Your task to perform on an android device: clear history in the chrome app Image 0: 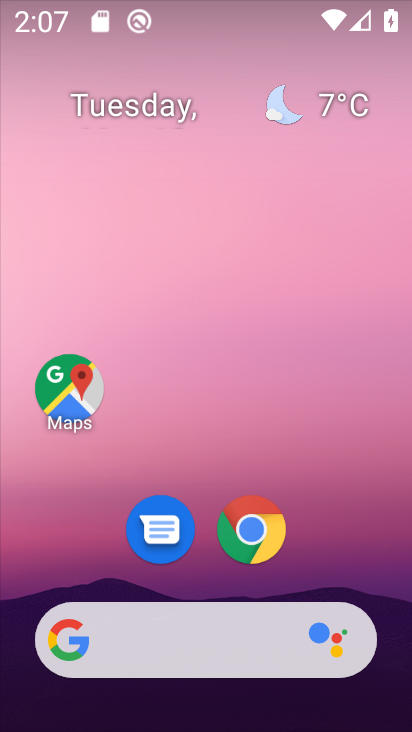
Step 0: click (252, 525)
Your task to perform on an android device: clear history in the chrome app Image 1: 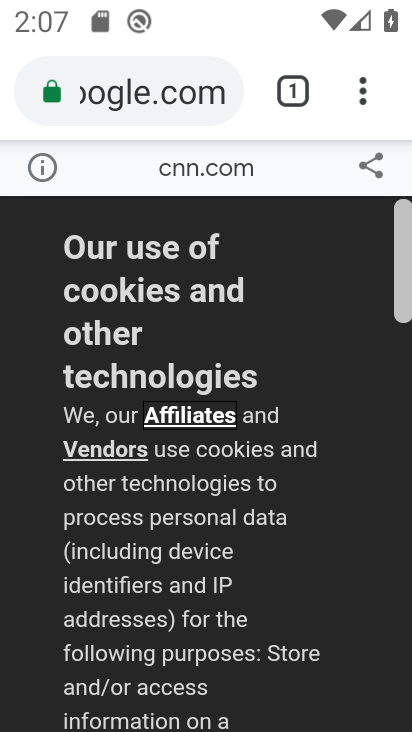
Step 1: click (362, 93)
Your task to perform on an android device: clear history in the chrome app Image 2: 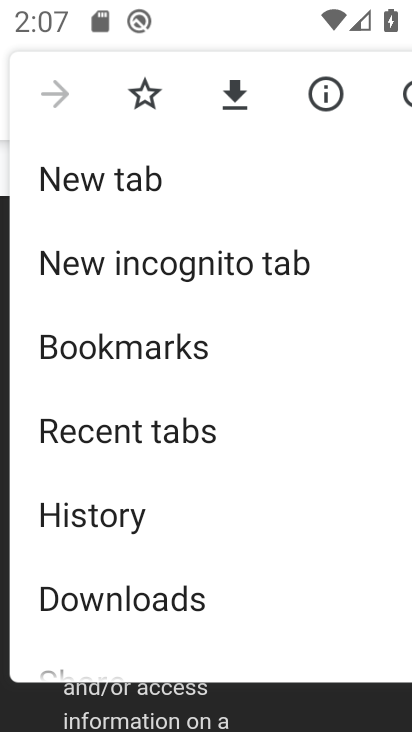
Step 2: click (123, 510)
Your task to perform on an android device: clear history in the chrome app Image 3: 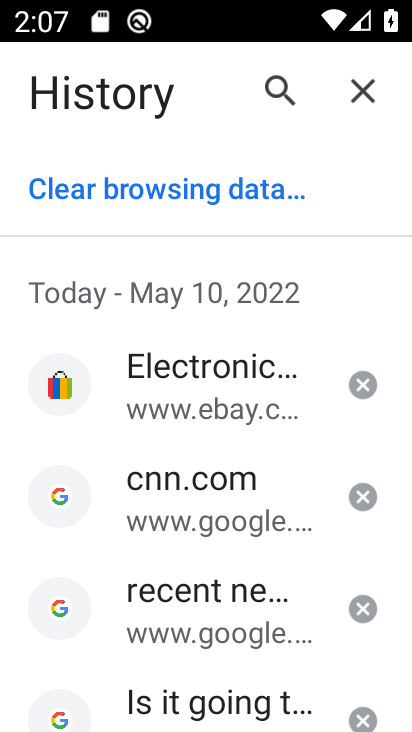
Step 3: click (186, 190)
Your task to perform on an android device: clear history in the chrome app Image 4: 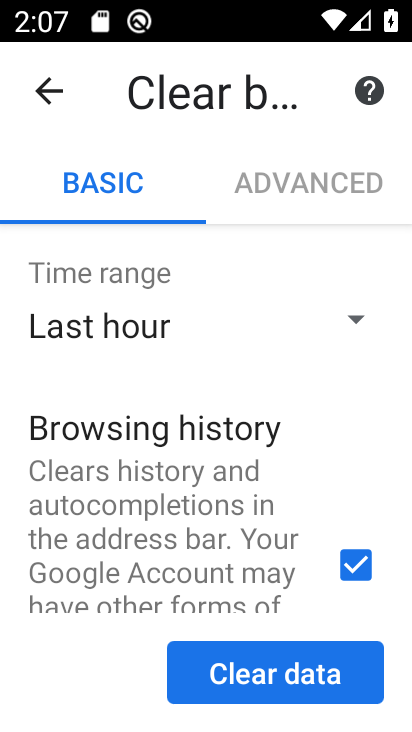
Step 4: click (295, 663)
Your task to perform on an android device: clear history in the chrome app Image 5: 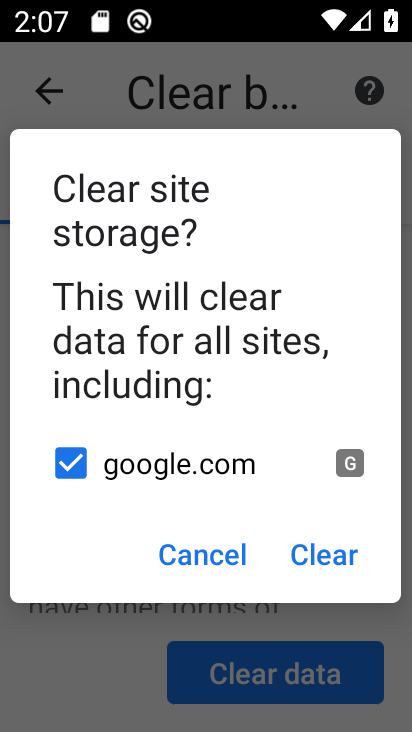
Step 5: click (322, 561)
Your task to perform on an android device: clear history in the chrome app Image 6: 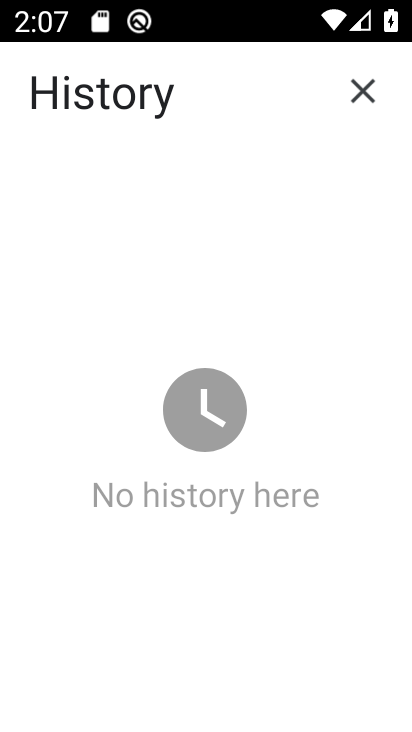
Step 6: task complete